Your task to perform on an android device: Open battery settings Image 0: 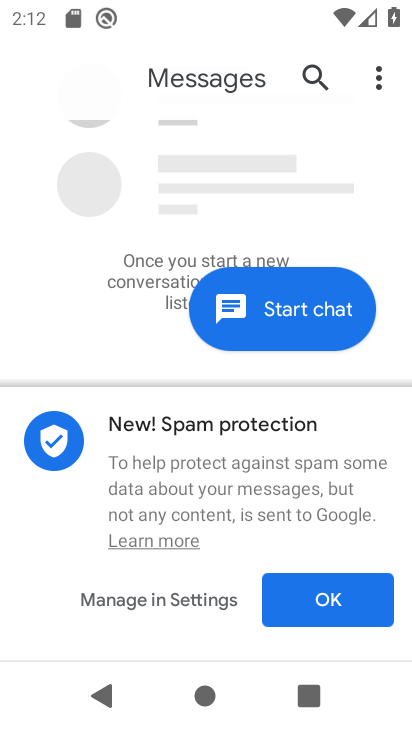
Step 0: press home button
Your task to perform on an android device: Open battery settings Image 1: 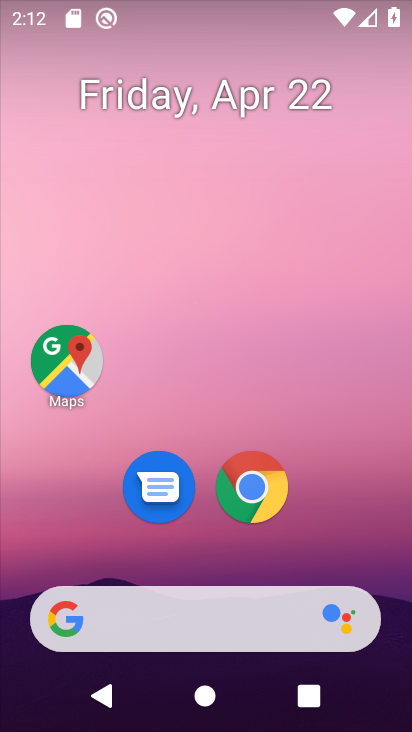
Step 1: drag from (214, 261) to (203, 209)
Your task to perform on an android device: Open battery settings Image 2: 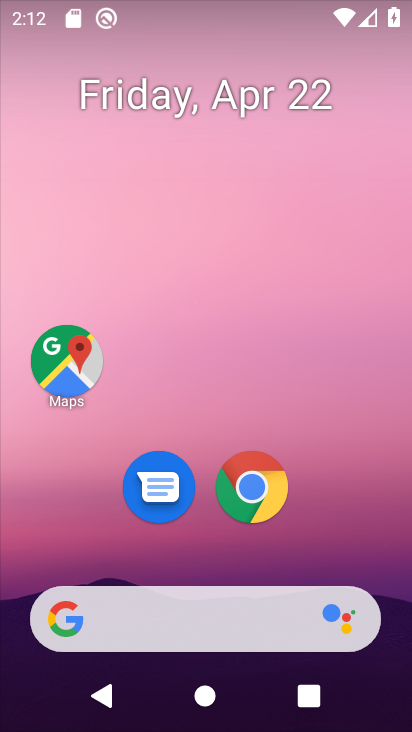
Step 2: drag from (209, 559) to (220, 182)
Your task to perform on an android device: Open battery settings Image 3: 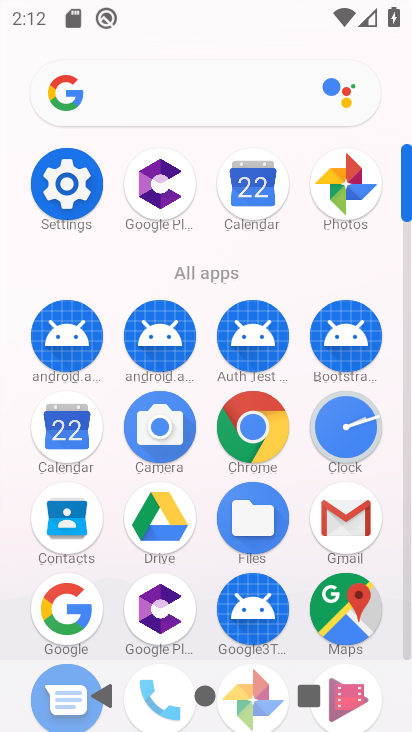
Step 3: click (74, 197)
Your task to perform on an android device: Open battery settings Image 4: 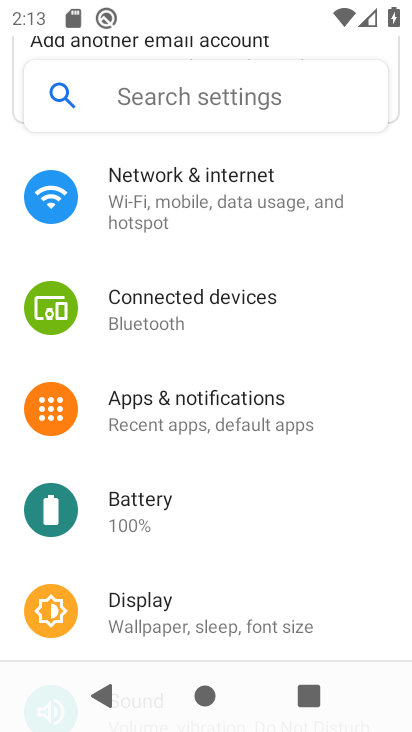
Step 4: click (186, 491)
Your task to perform on an android device: Open battery settings Image 5: 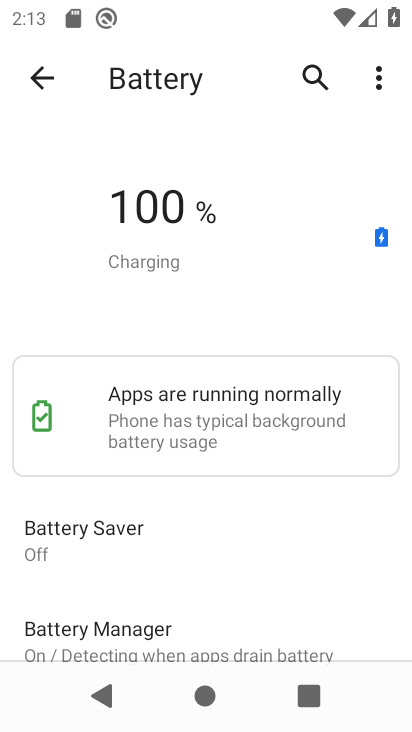
Step 5: click (375, 89)
Your task to perform on an android device: Open battery settings Image 6: 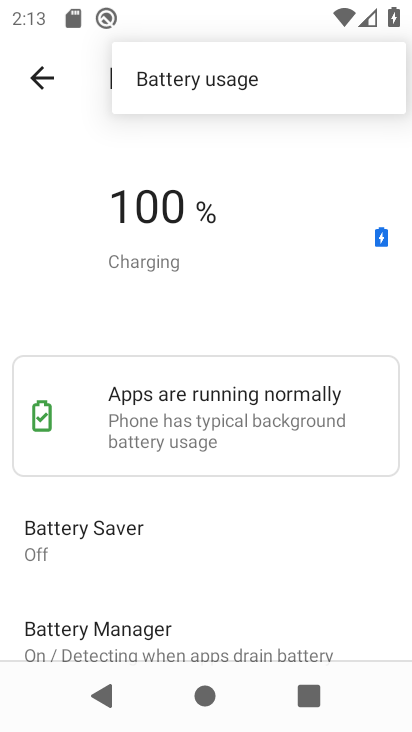
Step 6: task complete